Your task to perform on an android device: Open Google Image 0: 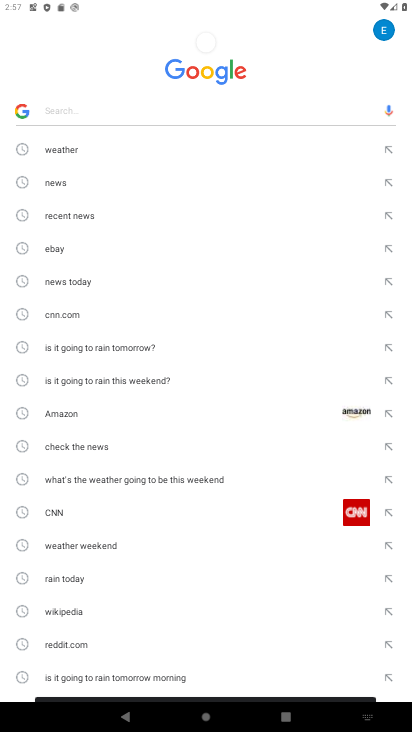
Step 0: press back button
Your task to perform on an android device: Open Google Image 1: 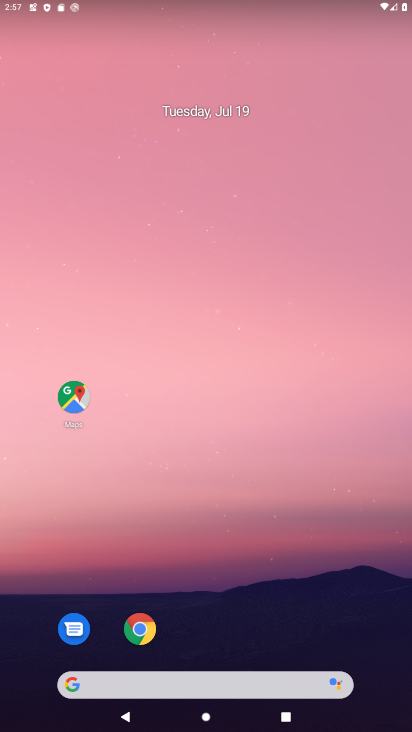
Step 1: drag from (184, 460) to (153, 165)
Your task to perform on an android device: Open Google Image 2: 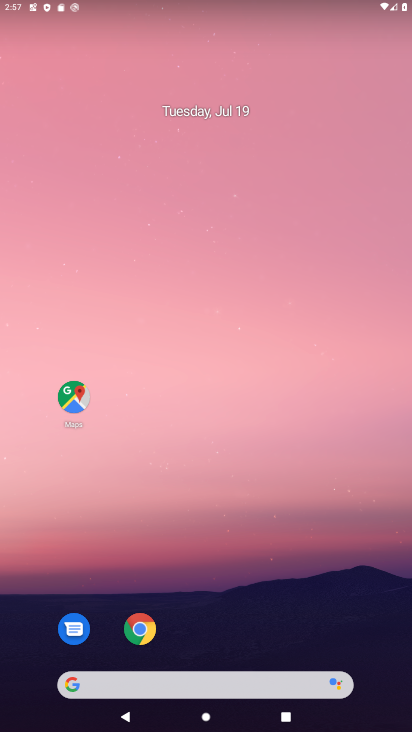
Step 2: drag from (200, 681) to (161, 314)
Your task to perform on an android device: Open Google Image 3: 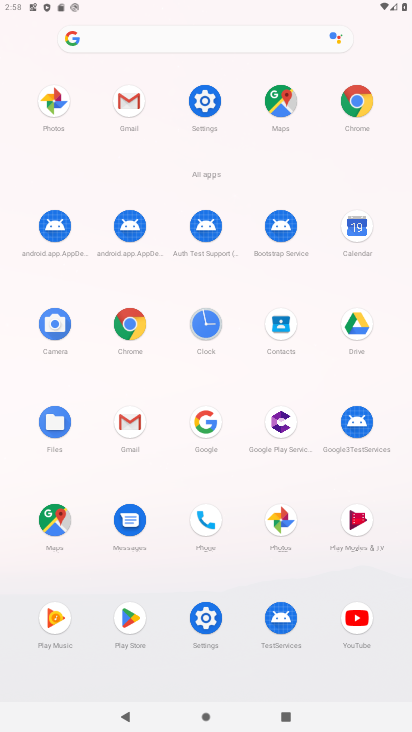
Step 3: click (206, 427)
Your task to perform on an android device: Open Google Image 4: 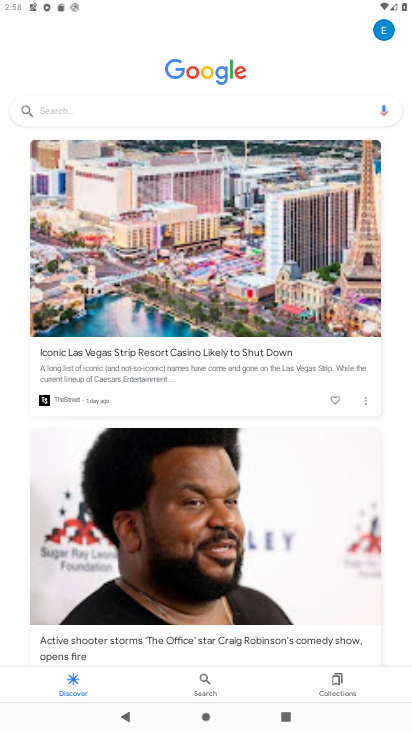
Step 4: task complete